Your task to perform on an android device: Go to Android settings Image 0: 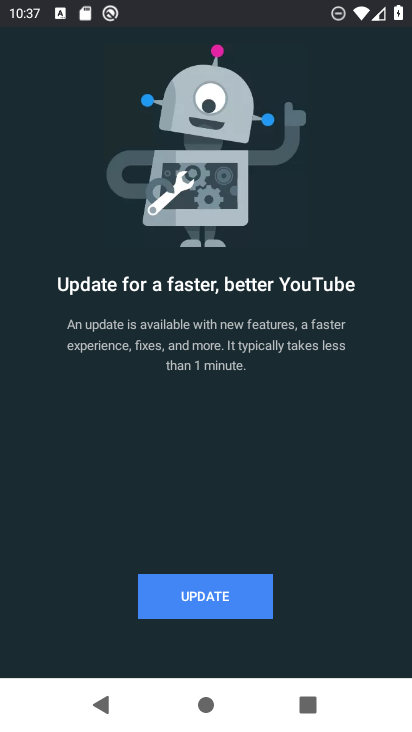
Step 0: press home button
Your task to perform on an android device: Go to Android settings Image 1: 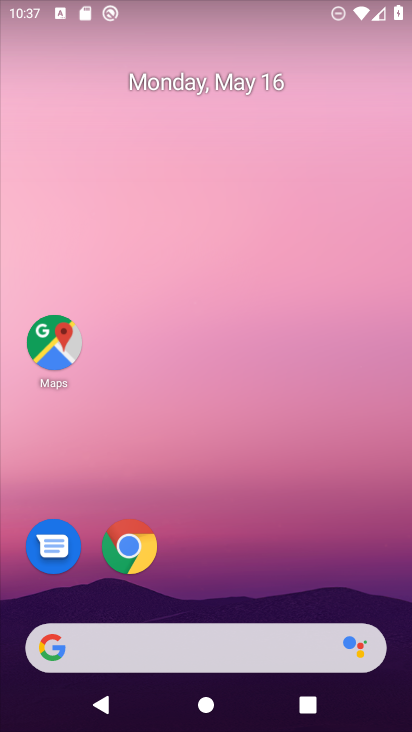
Step 1: drag from (196, 614) to (215, 116)
Your task to perform on an android device: Go to Android settings Image 2: 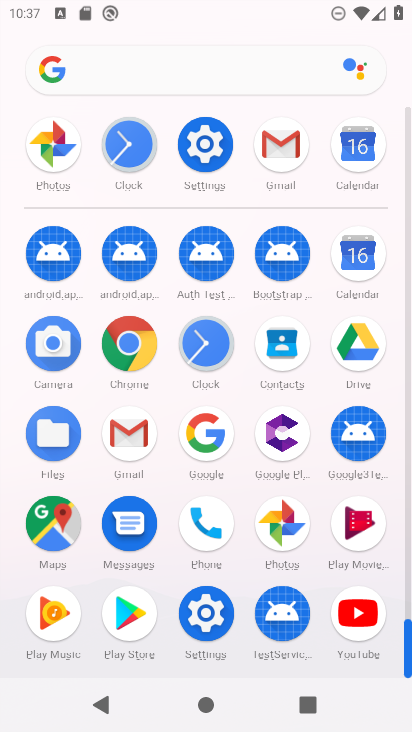
Step 2: click (198, 147)
Your task to perform on an android device: Go to Android settings Image 3: 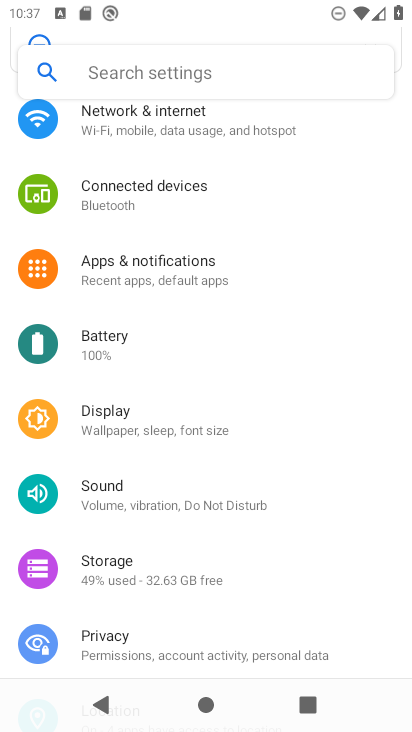
Step 3: drag from (97, 625) to (171, 102)
Your task to perform on an android device: Go to Android settings Image 4: 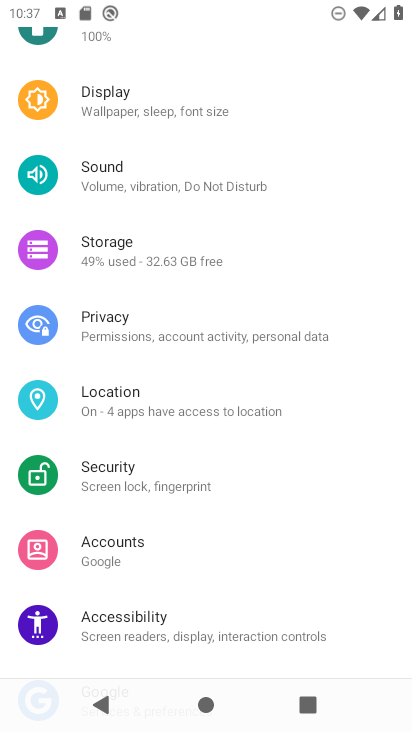
Step 4: drag from (77, 602) to (170, 24)
Your task to perform on an android device: Go to Android settings Image 5: 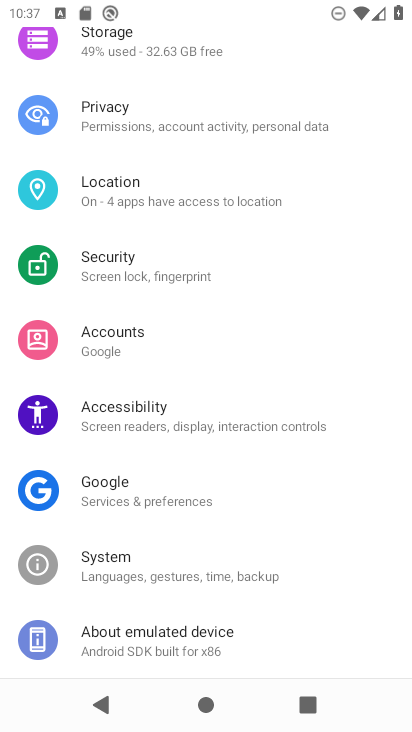
Step 5: drag from (97, 628) to (171, 277)
Your task to perform on an android device: Go to Android settings Image 6: 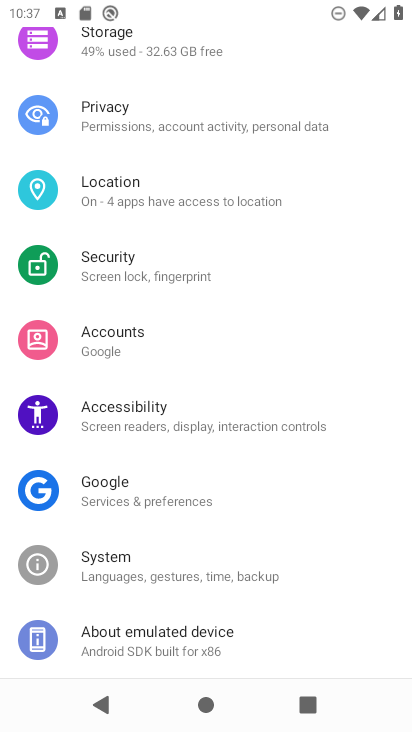
Step 6: click (148, 657)
Your task to perform on an android device: Go to Android settings Image 7: 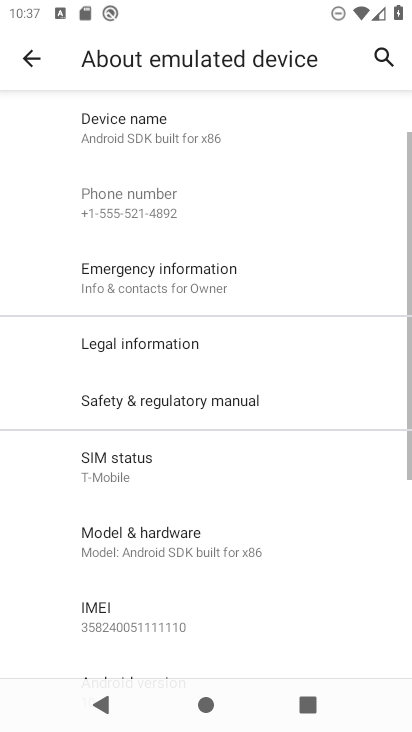
Step 7: task complete